Your task to perform on an android device: change the clock display to analog Image 0: 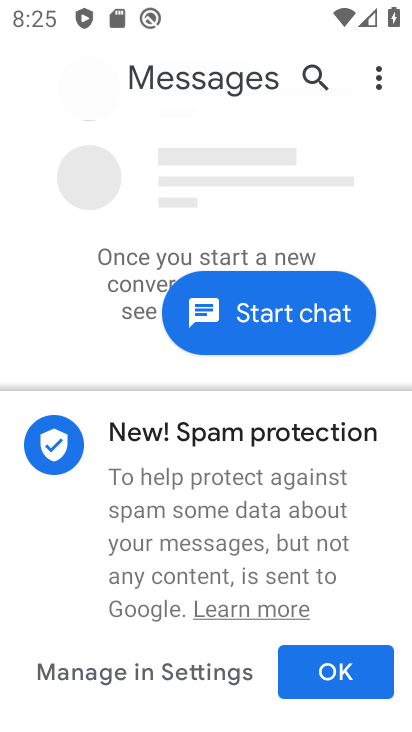
Step 0: press home button
Your task to perform on an android device: change the clock display to analog Image 1: 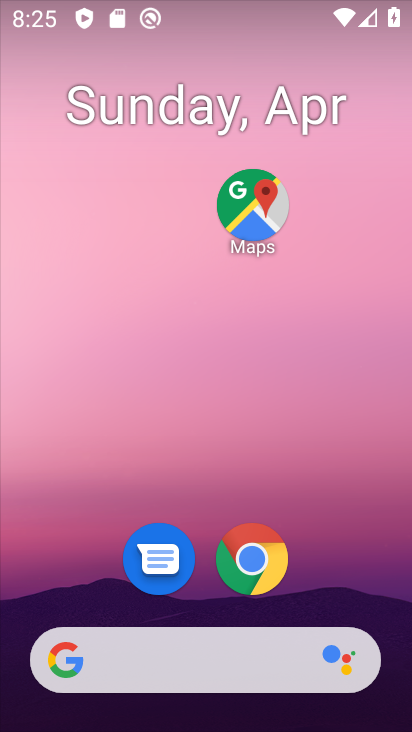
Step 1: drag from (20, 591) to (208, 234)
Your task to perform on an android device: change the clock display to analog Image 2: 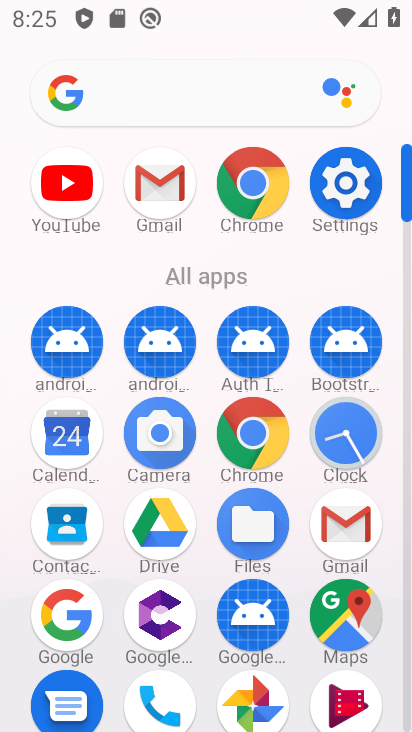
Step 2: click (340, 433)
Your task to perform on an android device: change the clock display to analog Image 3: 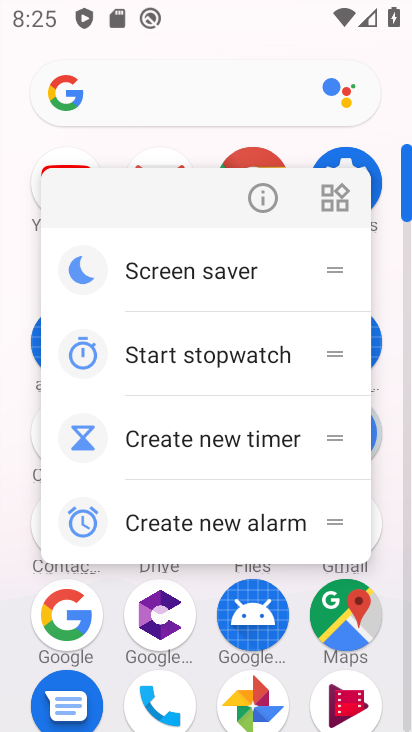
Step 3: click (267, 195)
Your task to perform on an android device: change the clock display to analog Image 4: 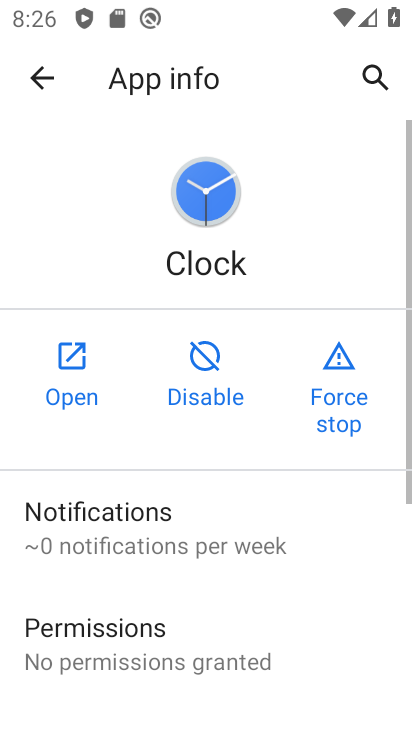
Step 4: click (79, 352)
Your task to perform on an android device: change the clock display to analog Image 5: 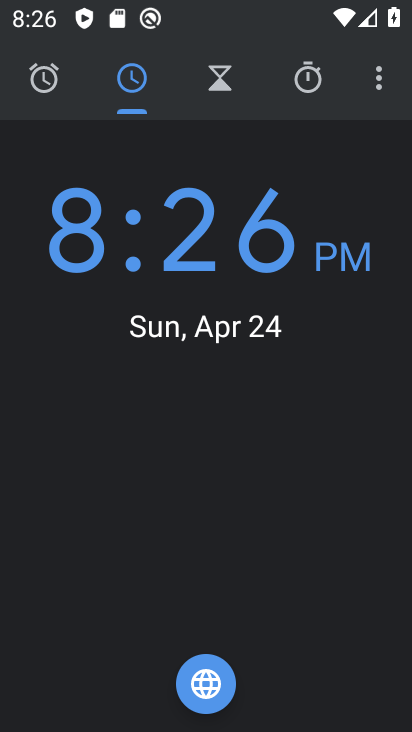
Step 5: click (381, 84)
Your task to perform on an android device: change the clock display to analog Image 6: 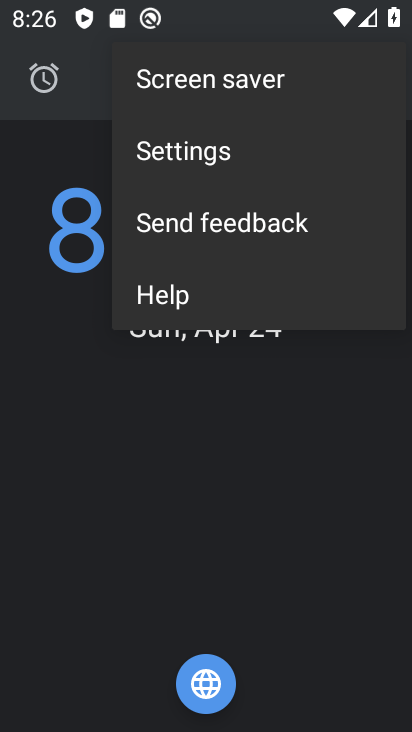
Step 6: click (246, 135)
Your task to perform on an android device: change the clock display to analog Image 7: 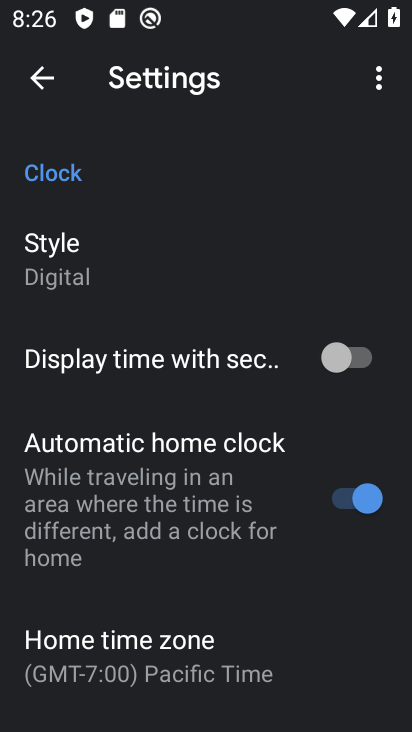
Step 7: click (145, 272)
Your task to perform on an android device: change the clock display to analog Image 8: 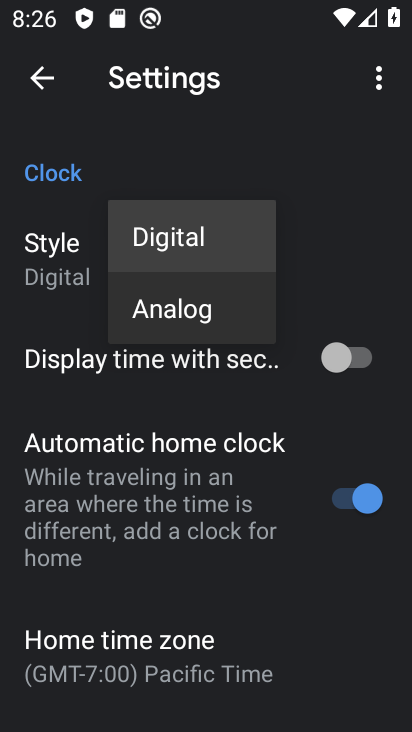
Step 8: click (141, 316)
Your task to perform on an android device: change the clock display to analog Image 9: 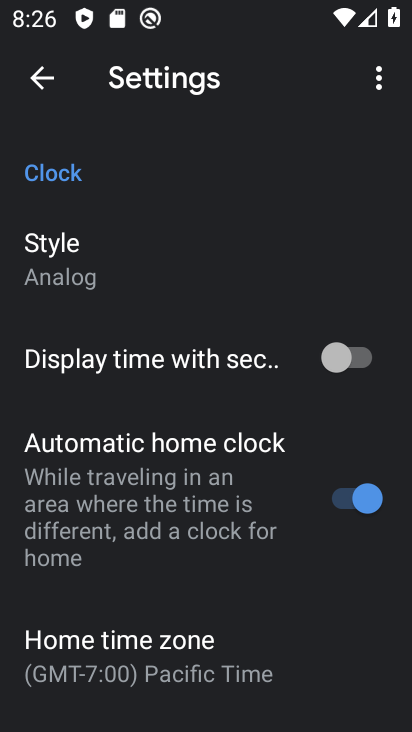
Step 9: task complete